Your task to perform on an android device: turn on showing notifications on the lock screen Image 0: 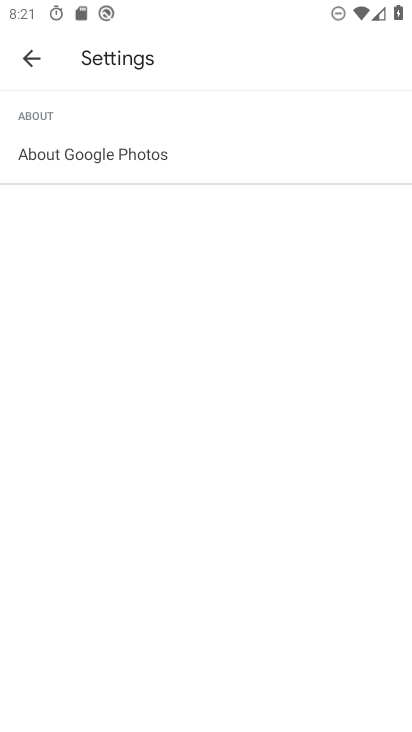
Step 0: press home button
Your task to perform on an android device: turn on showing notifications on the lock screen Image 1: 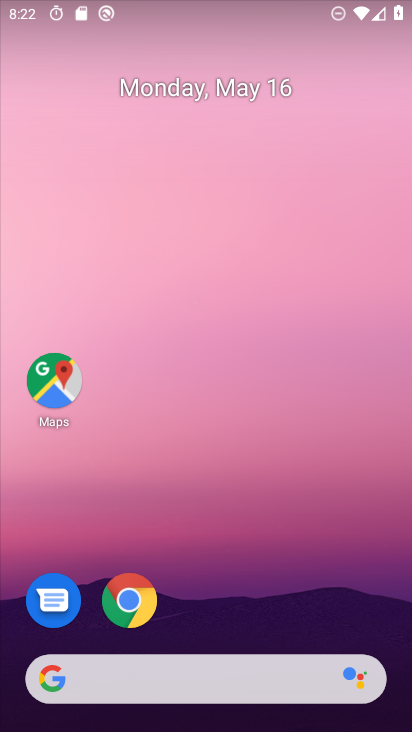
Step 1: drag from (140, 679) to (269, 223)
Your task to perform on an android device: turn on showing notifications on the lock screen Image 2: 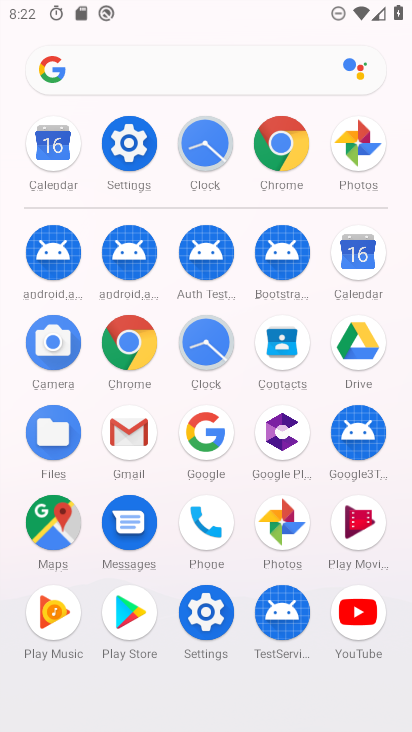
Step 2: click (127, 140)
Your task to perform on an android device: turn on showing notifications on the lock screen Image 3: 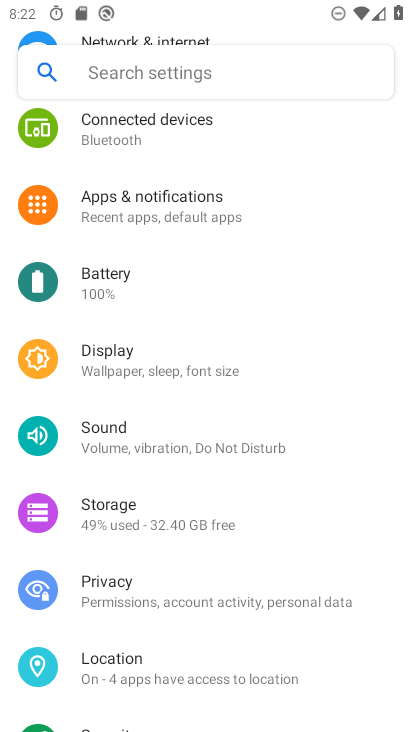
Step 3: click (179, 211)
Your task to perform on an android device: turn on showing notifications on the lock screen Image 4: 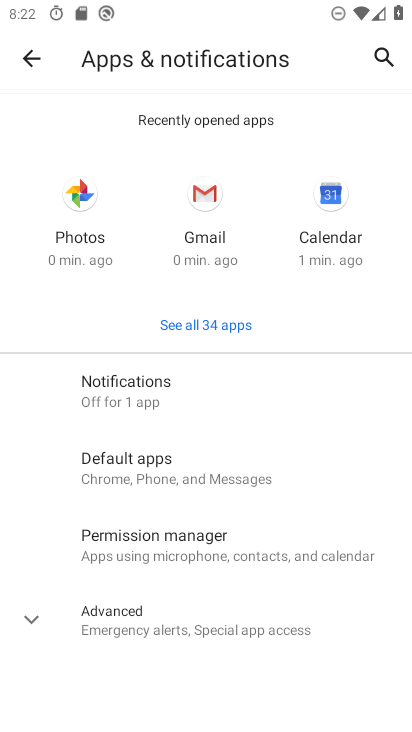
Step 4: click (142, 397)
Your task to perform on an android device: turn on showing notifications on the lock screen Image 5: 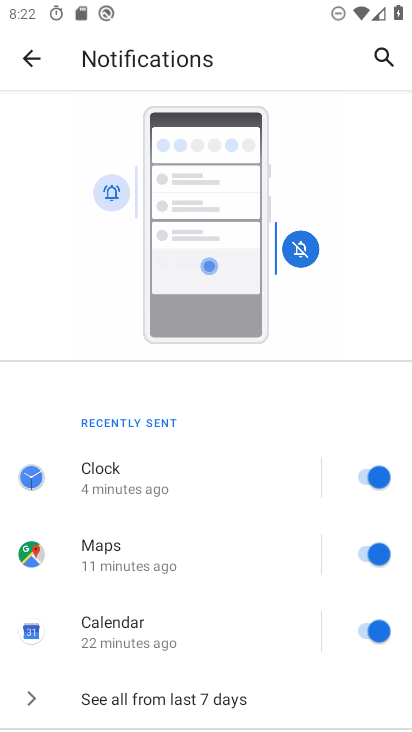
Step 5: drag from (258, 630) to (286, 203)
Your task to perform on an android device: turn on showing notifications on the lock screen Image 6: 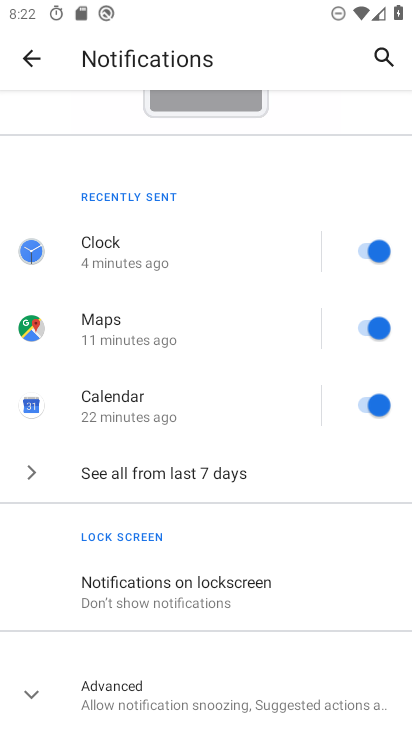
Step 6: click (209, 605)
Your task to perform on an android device: turn on showing notifications on the lock screen Image 7: 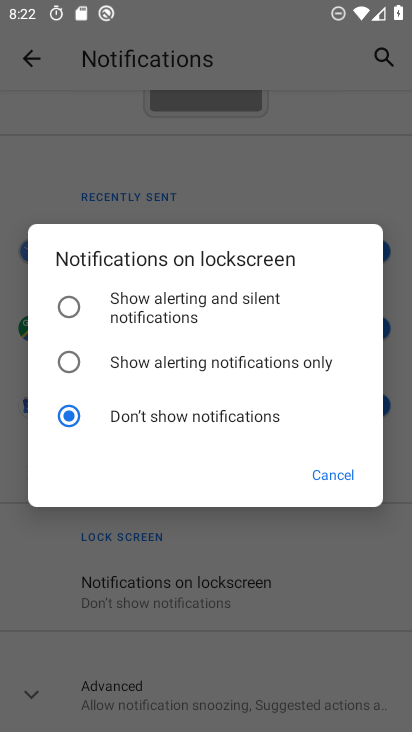
Step 7: click (67, 310)
Your task to perform on an android device: turn on showing notifications on the lock screen Image 8: 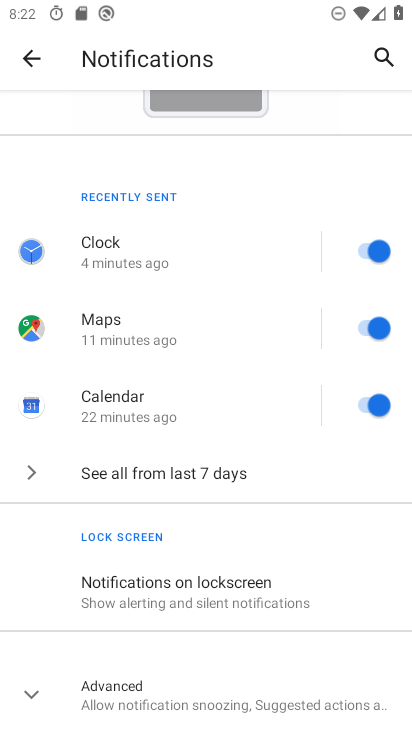
Step 8: task complete